Your task to perform on an android device: toggle notifications settings in the gmail app Image 0: 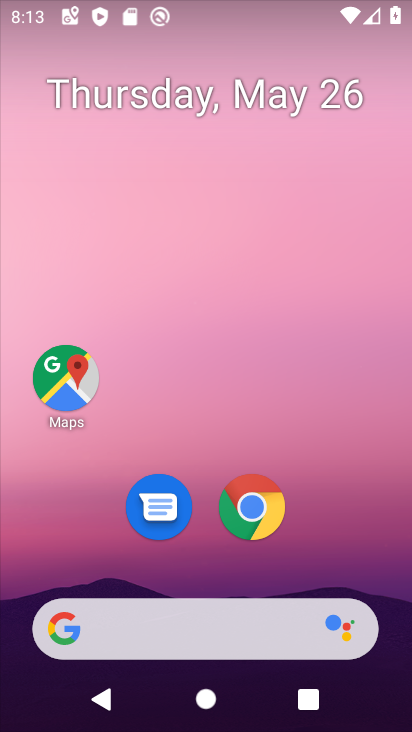
Step 0: drag from (199, 487) to (245, 165)
Your task to perform on an android device: toggle notifications settings in the gmail app Image 1: 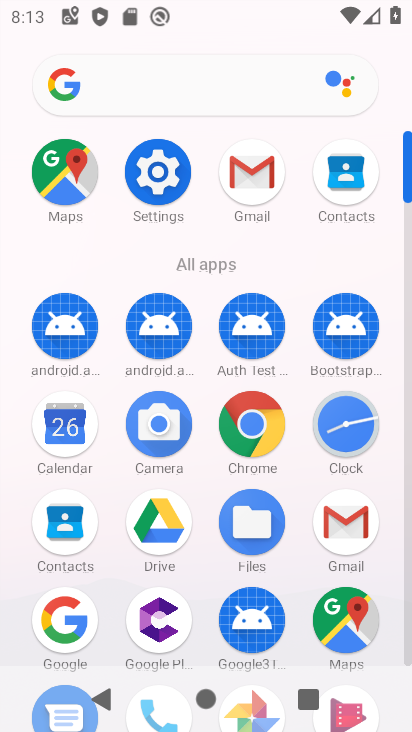
Step 1: click (260, 172)
Your task to perform on an android device: toggle notifications settings in the gmail app Image 2: 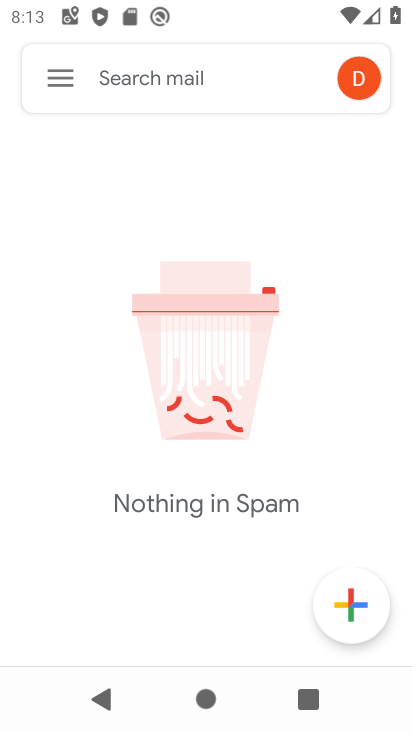
Step 2: click (48, 71)
Your task to perform on an android device: toggle notifications settings in the gmail app Image 3: 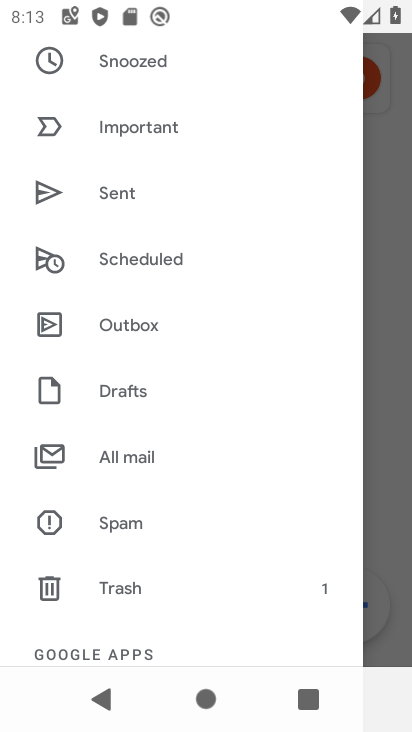
Step 3: drag from (167, 514) to (208, 60)
Your task to perform on an android device: toggle notifications settings in the gmail app Image 4: 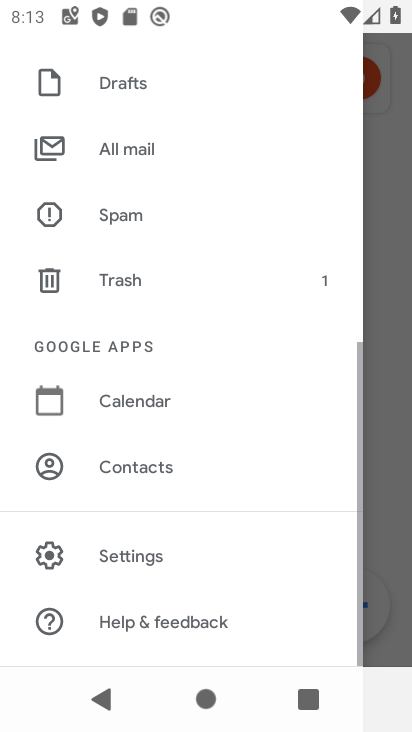
Step 4: click (138, 554)
Your task to perform on an android device: toggle notifications settings in the gmail app Image 5: 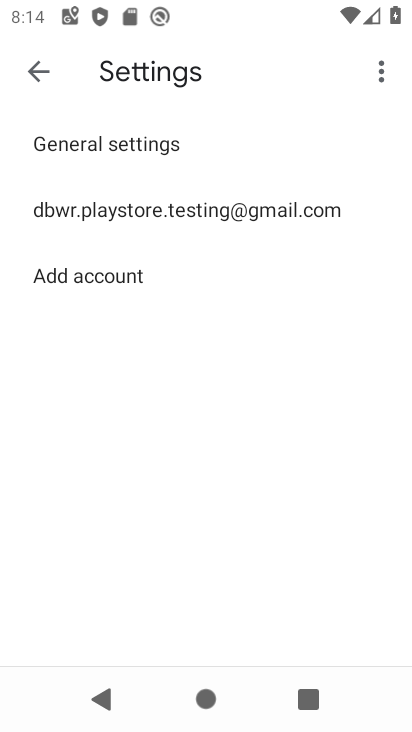
Step 5: click (161, 211)
Your task to perform on an android device: toggle notifications settings in the gmail app Image 6: 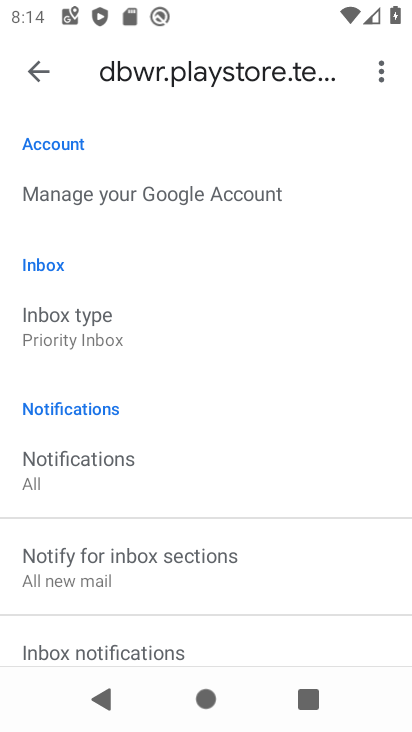
Step 6: click (106, 461)
Your task to perform on an android device: toggle notifications settings in the gmail app Image 7: 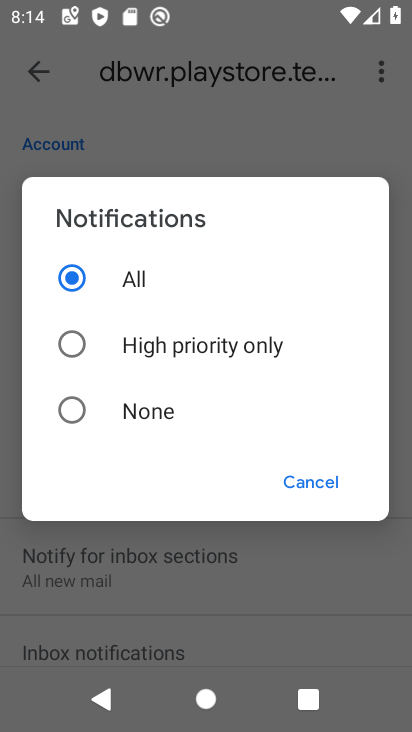
Step 7: click (308, 485)
Your task to perform on an android device: toggle notifications settings in the gmail app Image 8: 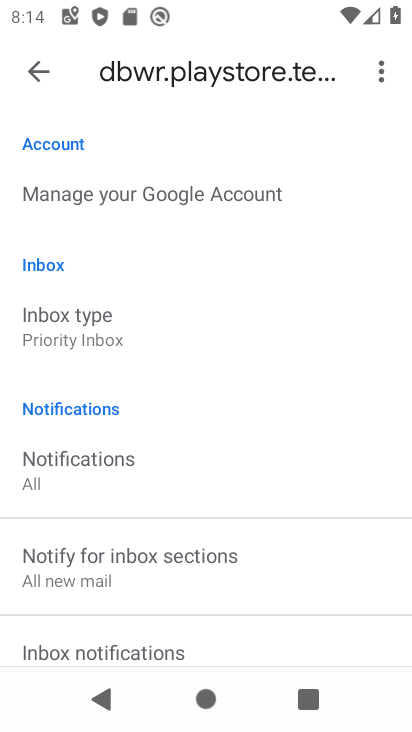
Step 8: drag from (106, 416) to (155, 166)
Your task to perform on an android device: toggle notifications settings in the gmail app Image 9: 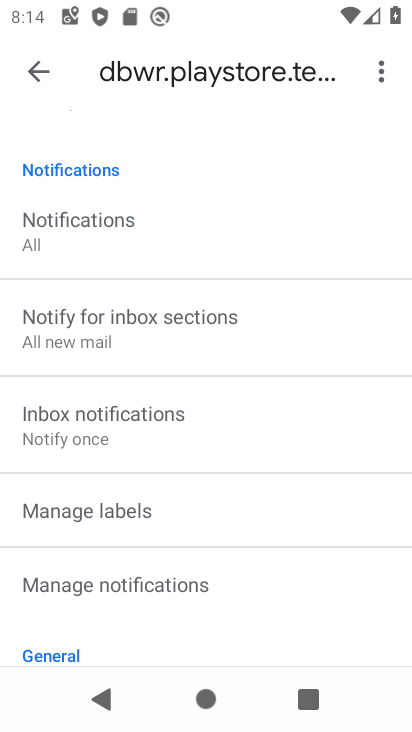
Step 9: click (138, 596)
Your task to perform on an android device: toggle notifications settings in the gmail app Image 10: 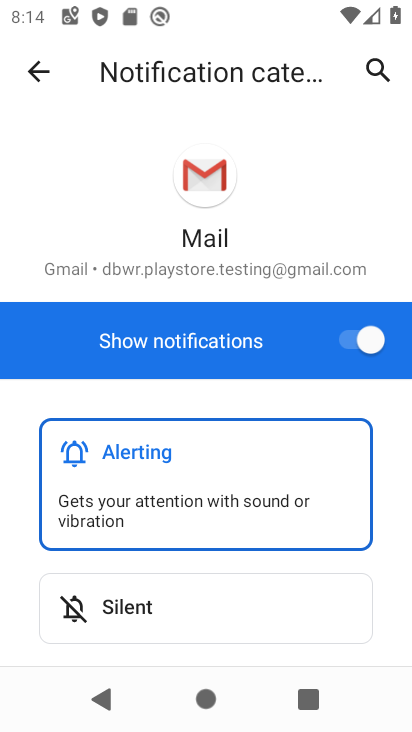
Step 10: click (370, 337)
Your task to perform on an android device: toggle notifications settings in the gmail app Image 11: 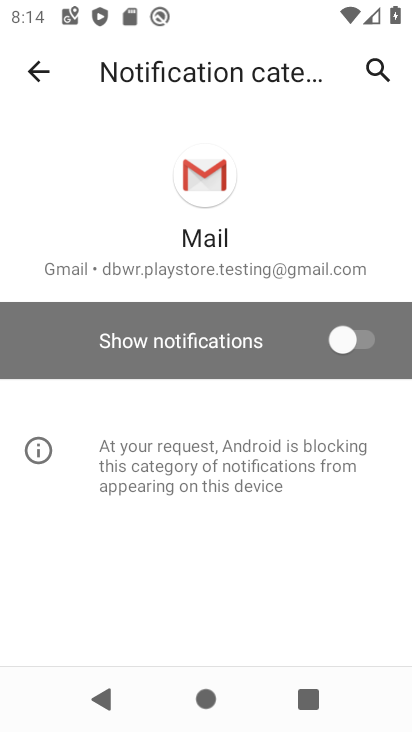
Step 11: task complete